Your task to perform on an android device: clear history in the chrome app Image 0: 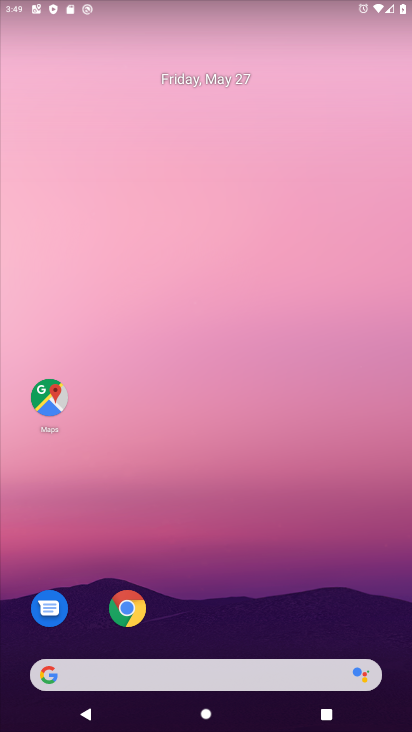
Step 0: click (113, 610)
Your task to perform on an android device: clear history in the chrome app Image 1: 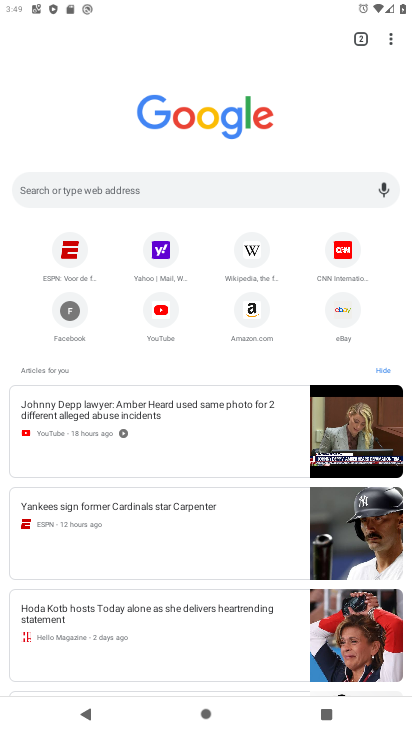
Step 1: click (389, 44)
Your task to perform on an android device: clear history in the chrome app Image 2: 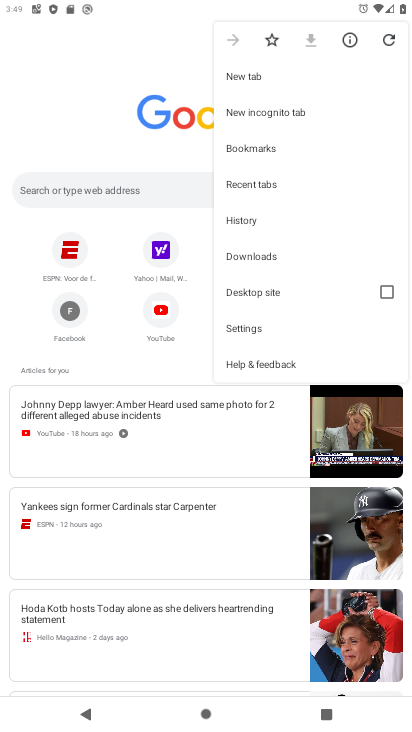
Step 2: click (247, 218)
Your task to perform on an android device: clear history in the chrome app Image 3: 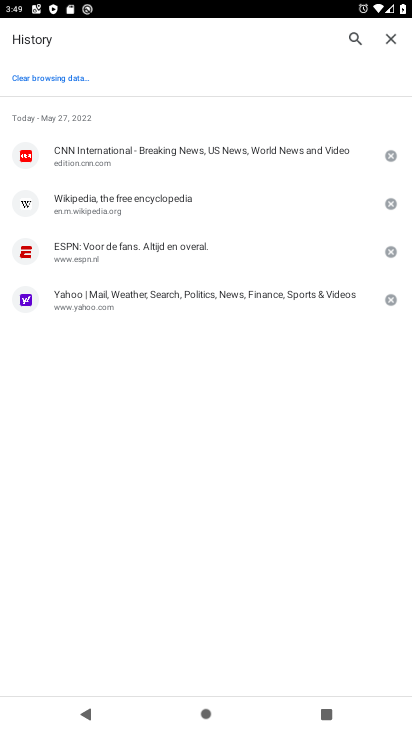
Step 3: click (84, 78)
Your task to perform on an android device: clear history in the chrome app Image 4: 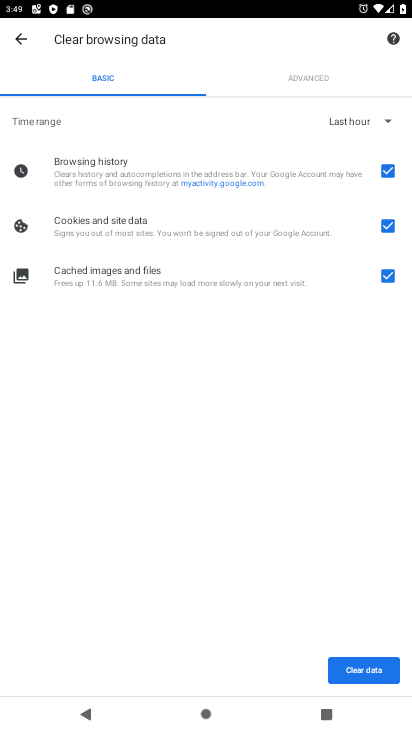
Step 4: click (364, 667)
Your task to perform on an android device: clear history in the chrome app Image 5: 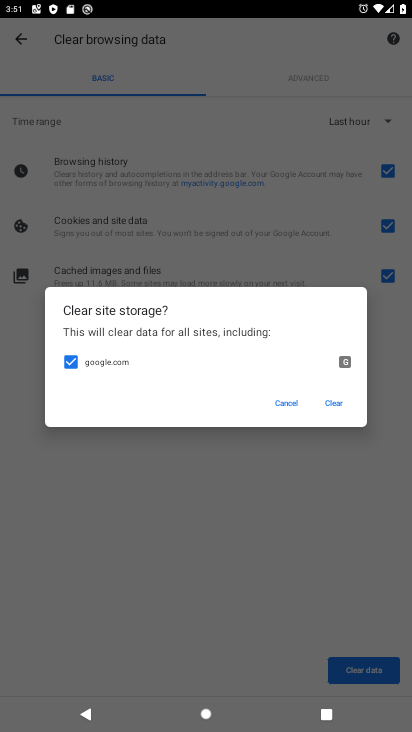
Step 5: click (330, 410)
Your task to perform on an android device: clear history in the chrome app Image 6: 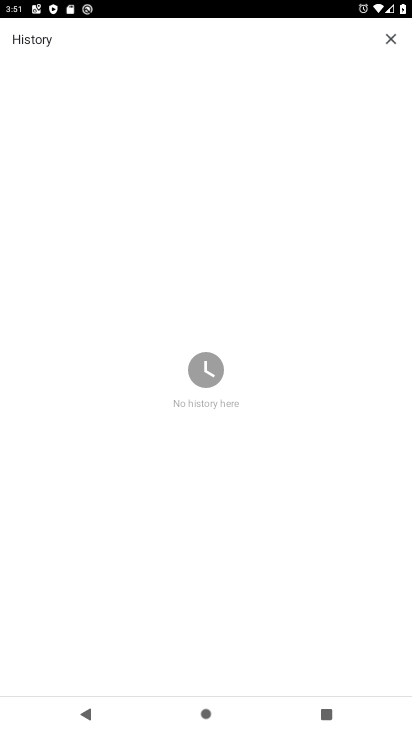
Step 6: task complete